Your task to perform on an android device: Go to wifi settings Image 0: 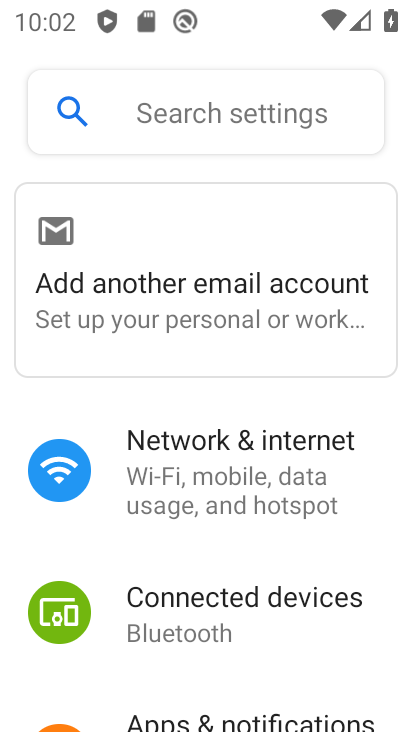
Step 0: click (259, 501)
Your task to perform on an android device: Go to wifi settings Image 1: 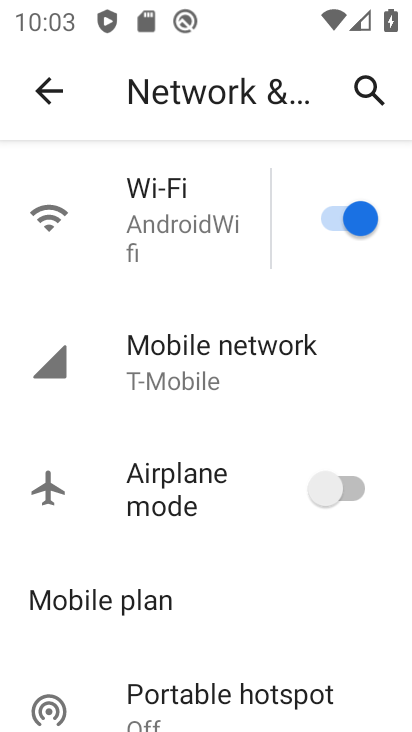
Step 1: click (204, 280)
Your task to perform on an android device: Go to wifi settings Image 2: 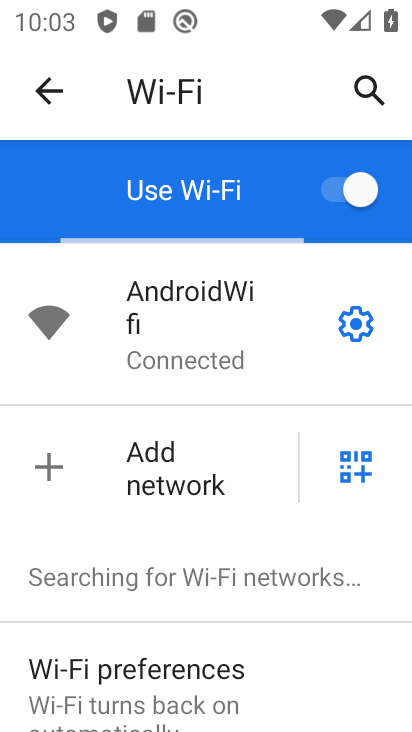
Step 2: task complete